Your task to perform on an android device: delete the emails in spam in the gmail app Image 0: 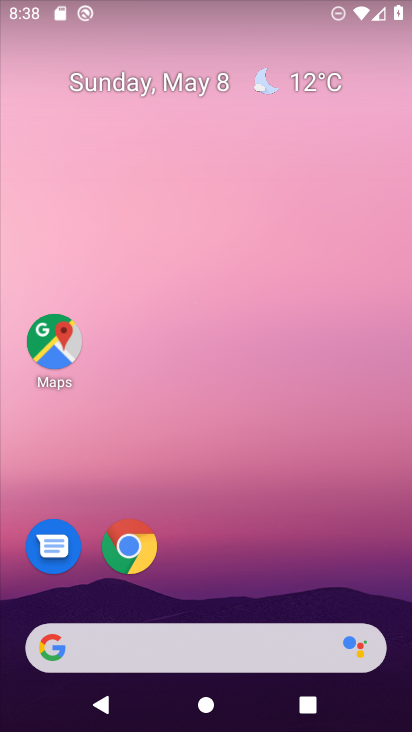
Step 0: drag from (267, 557) to (230, 17)
Your task to perform on an android device: delete the emails in spam in the gmail app Image 1: 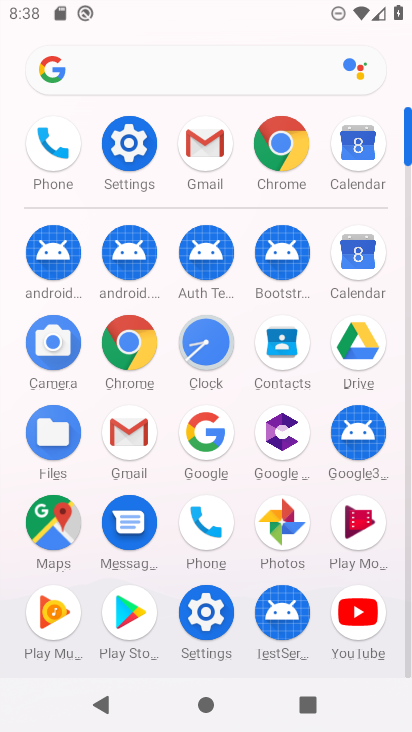
Step 1: click (203, 145)
Your task to perform on an android device: delete the emails in spam in the gmail app Image 2: 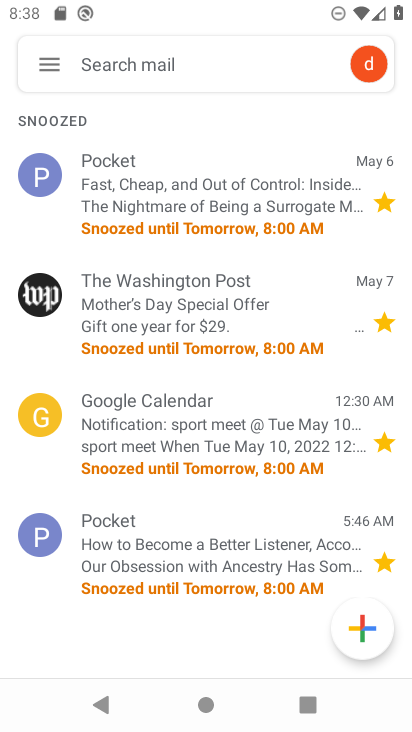
Step 2: click (50, 61)
Your task to perform on an android device: delete the emails in spam in the gmail app Image 3: 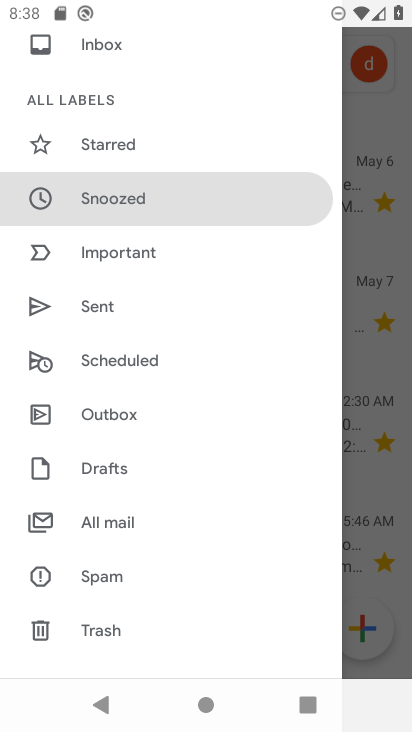
Step 3: click (107, 574)
Your task to perform on an android device: delete the emails in spam in the gmail app Image 4: 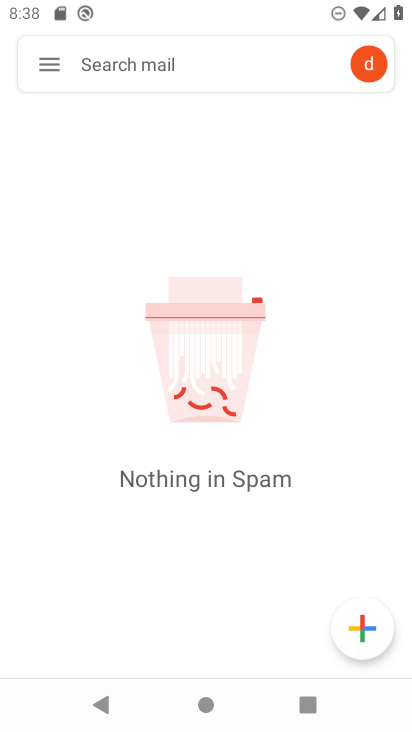
Step 4: task complete